Your task to perform on an android device: Open calendar and show me the third week of next month Image 0: 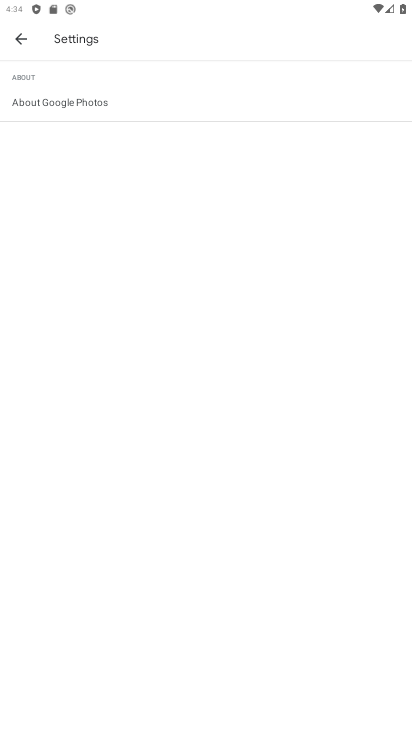
Step 0: press back button
Your task to perform on an android device: Open calendar and show me the third week of next month Image 1: 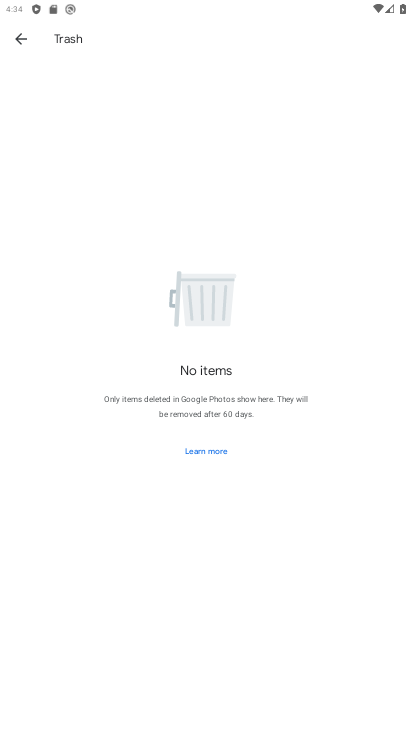
Step 1: press back button
Your task to perform on an android device: Open calendar and show me the third week of next month Image 2: 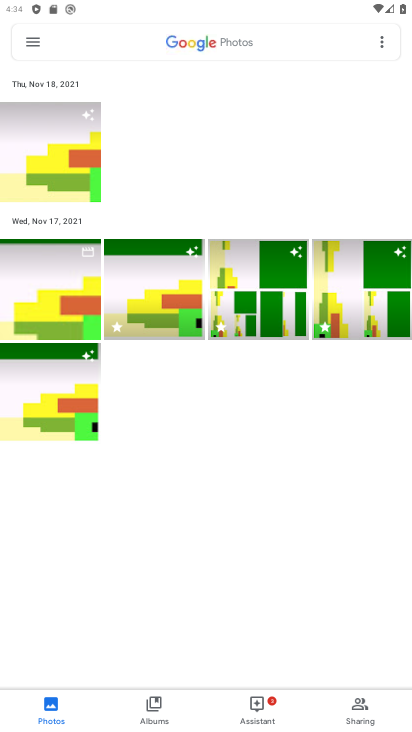
Step 2: press back button
Your task to perform on an android device: Open calendar and show me the third week of next month Image 3: 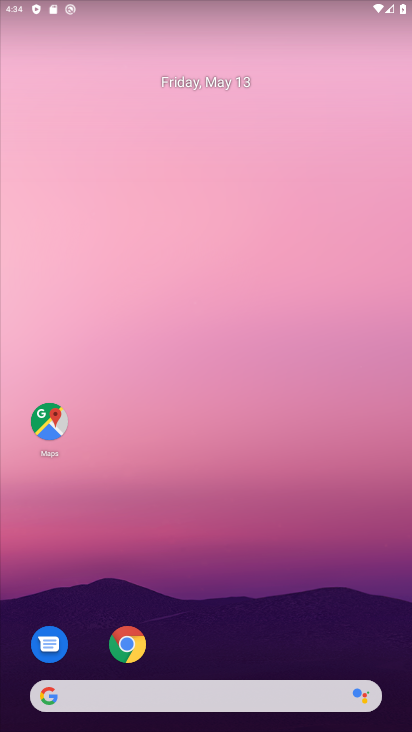
Step 3: drag from (257, 578) to (279, 99)
Your task to perform on an android device: Open calendar and show me the third week of next month Image 4: 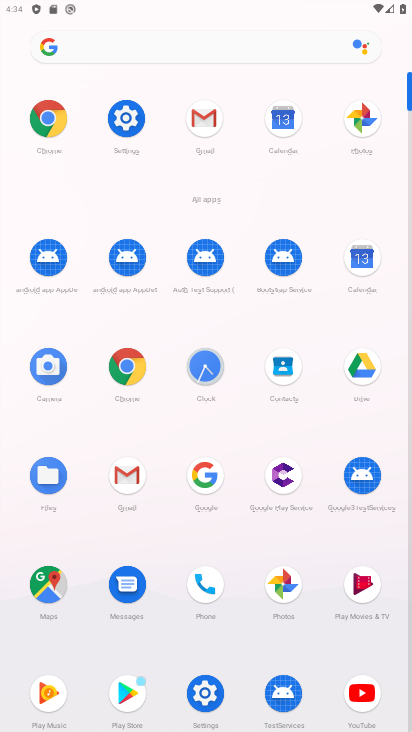
Step 4: press back button
Your task to perform on an android device: Open calendar and show me the third week of next month Image 5: 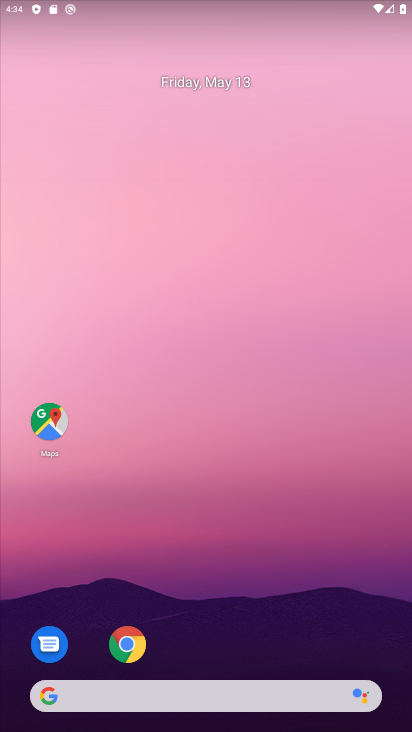
Step 5: drag from (207, 626) to (308, 177)
Your task to perform on an android device: Open calendar and show me the third week of next month Image 6: 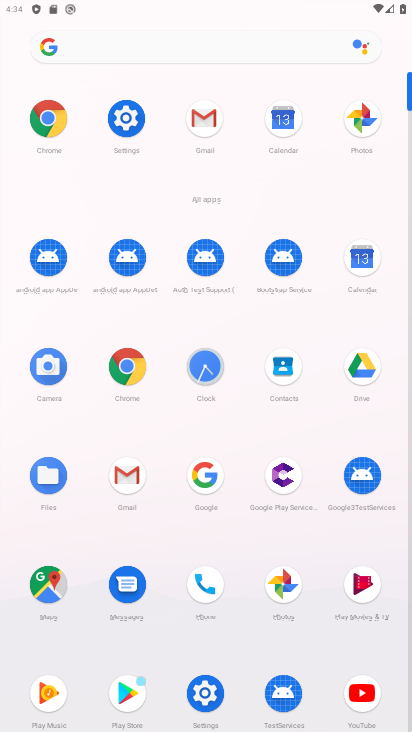
Step 6: click (363, 251)
Your task to perform on an android device: Open calendar and show me the third week of next month Image 7: 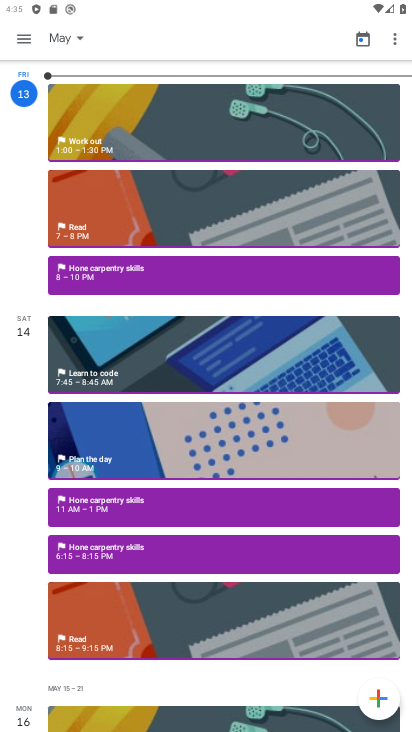
Step 7: click (70, 39)
Your task to perform on an android device: Open calendar and show me the third week of next month Image 8: 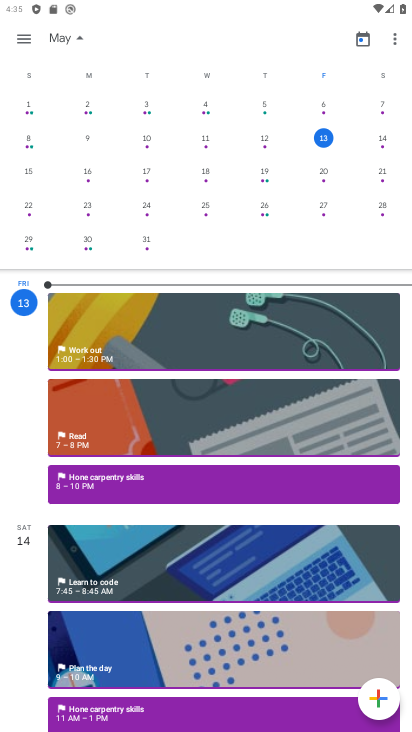
Step 8: drag from (364, 201) to (44, 125)
Your task to perform on an android device: Open calendar and show me the third week of next month Image 9: 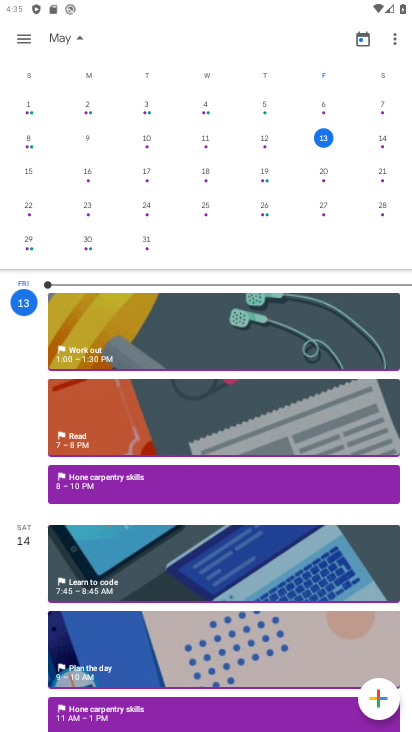
Step 9: drag from (358, 168) to (27, 180)
Your task to perform on an android device: Open calendar and show me the third week of next month Image 10: 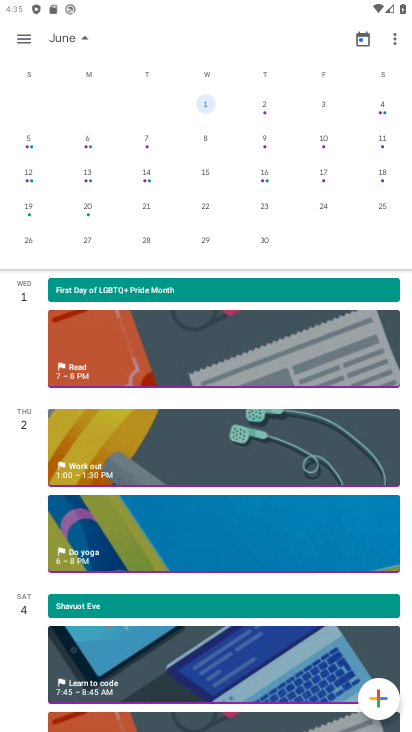
Step 10: click (87, 169)
Your task to perform on an android device: Open calendar and show me the third week of next month Image 11: 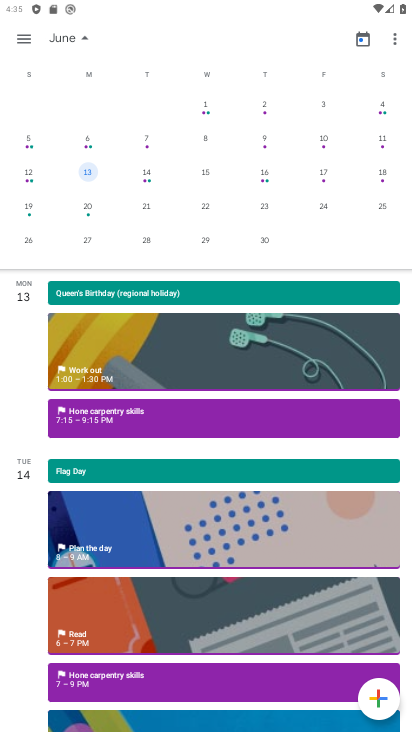
Step 11: task complete